Your task to perform on an android device: clear history in the chrome app Image 0: 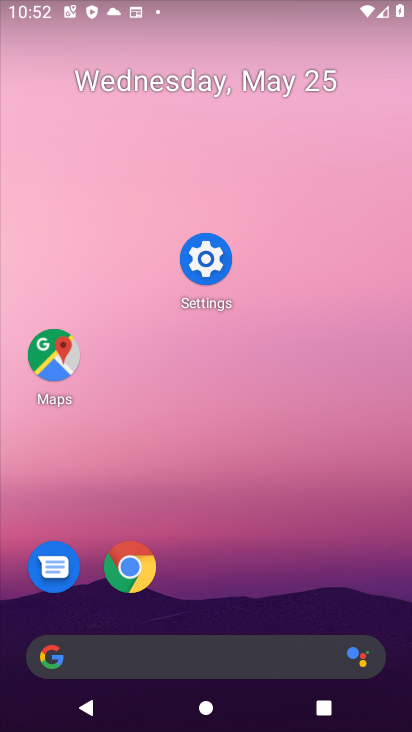
Step 0: drag from (347, 590) to (363, 201)
Your task to perform on an android device: clear history in the chrome app Image 1: 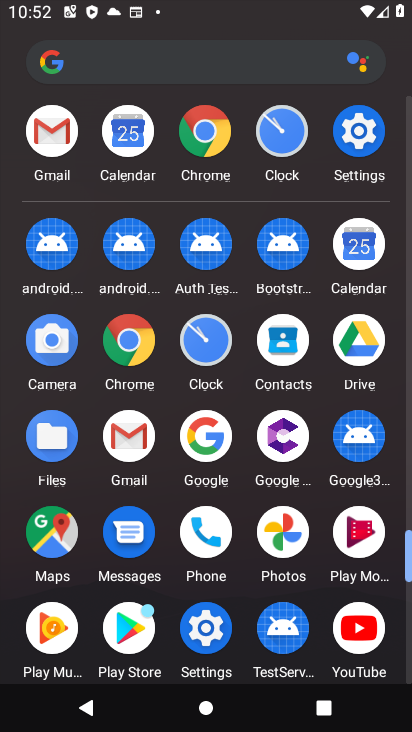
Step 1: click (211, 168)
Your task to perform on an android device: clear history in the chrome app Image 2: 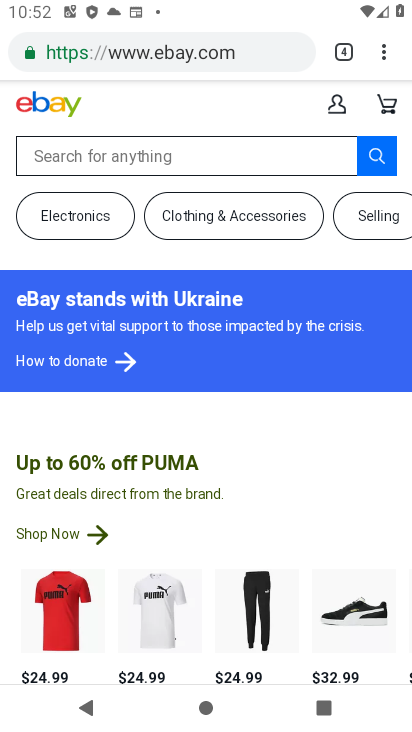
Step 2: click (383, 64)
Your task to perform on an android device: clear history in the chrome app Image 3: 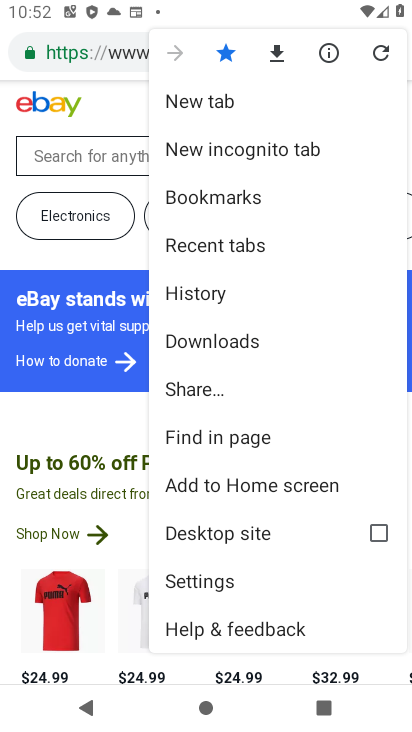
Step 3: click (237, 302)
Your task to perform on an android device: clear history in the chrome app Image 4: 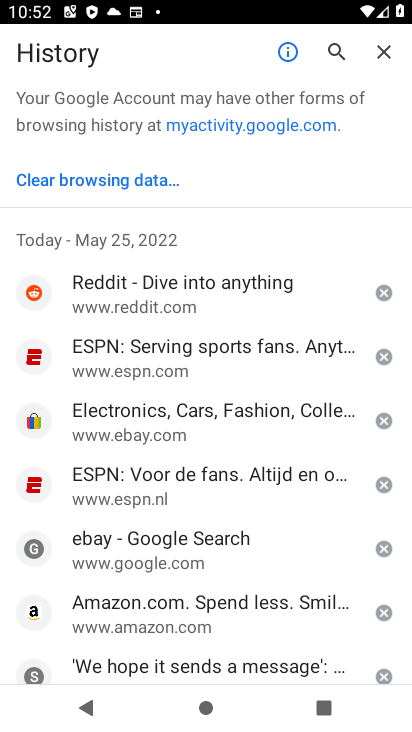
Step 4: click (143, 189)
Your task to perform on an android device: clear history in the chrome app Image 5: 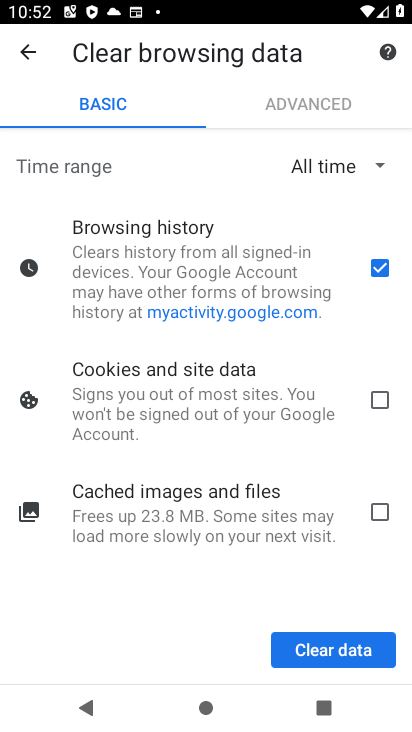
Step 5: click (323, 654)
Your task to perform on an android device: clear history in the chrome app Image 6: 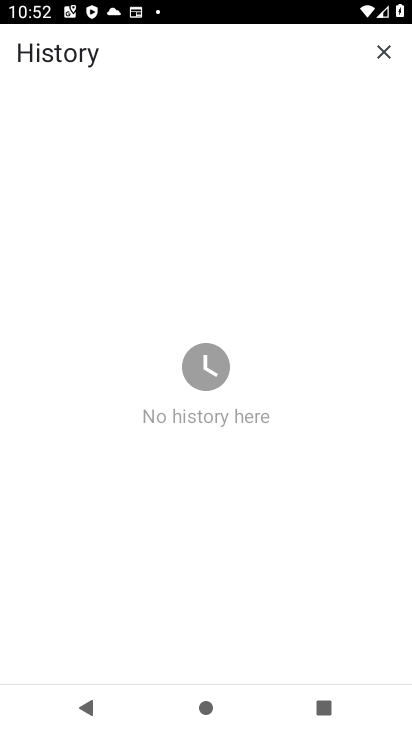
Step 6: task complete